Your task to perform on an android device: toggle javascript in the chrome app Image 0: 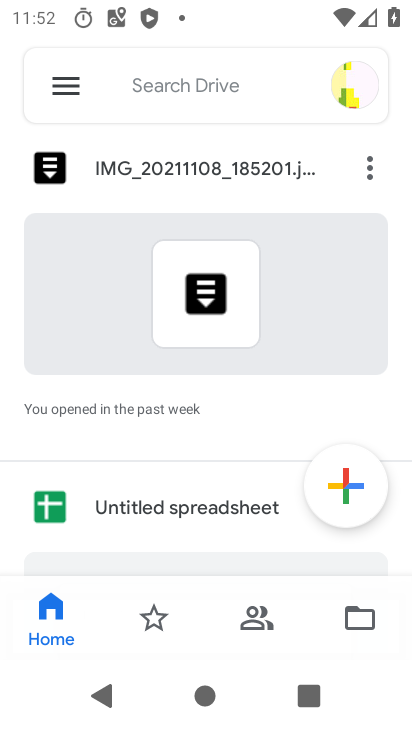
Step 0: press home button
Your task to perform on an android device: toggle javascript in the chrome app Image 1: 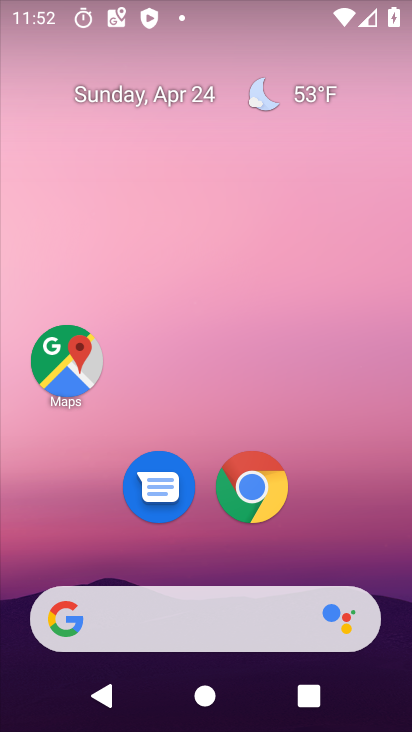
Step 1: click (246, 497)
Your task to perform on an android device: toggle javascript in the chrome app Image 2: 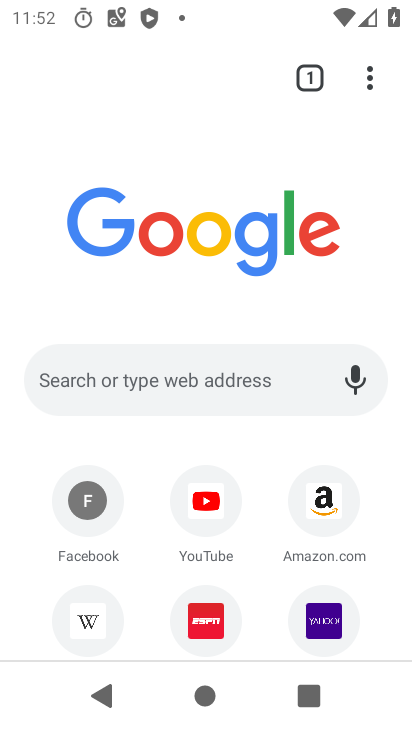
Step 2: click (366, 81)
Your task to perform on an android device: toggle javascript in the chrome app Image 3: 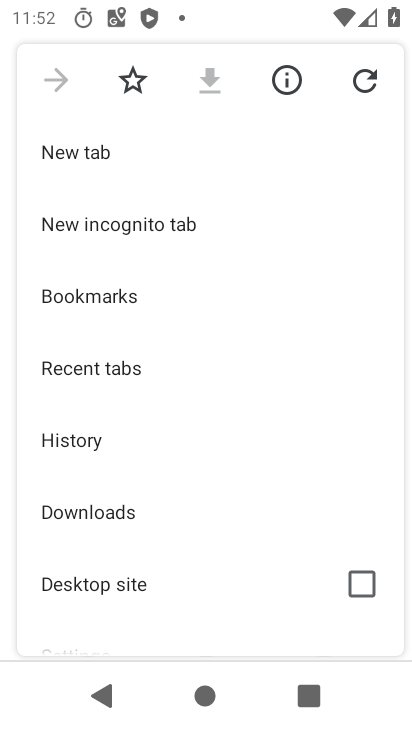
Step 3: drag from (151, 622) to (253, 213)
Your task to perform on an android device: toggle javascript in the chrome app Image 4: 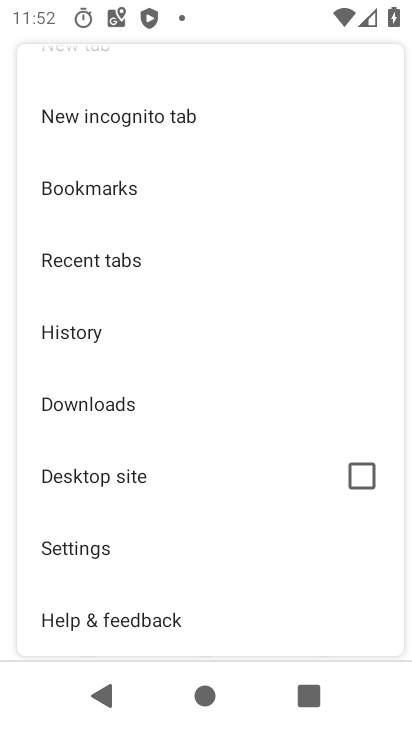
Step 4: drag from (190, 571) to (223, 287)
Your task to perform on an android device: toggle javascript in the chrome app Image 5: 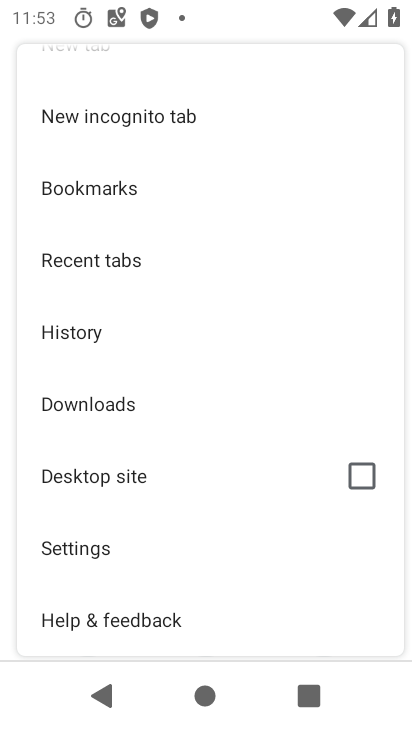
Step 5: click (108, 534)
Your task to perform on an android device: toggle javascript in the chrome app Image 6: 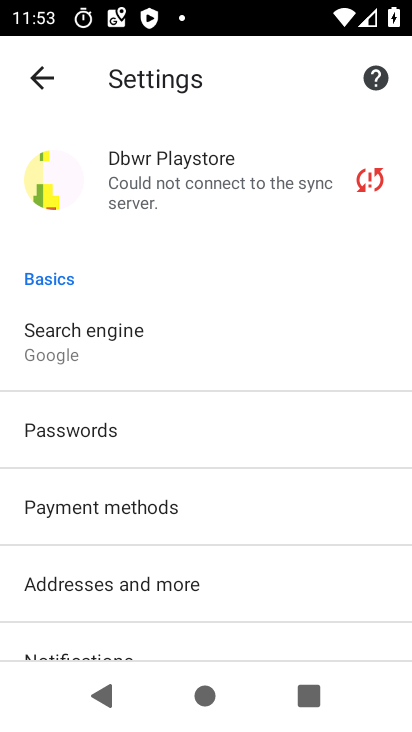
Step 6: drag from (143, 592) to (203, 195)
Your task to perform on an android device: toggle javascript in the chrome app Image 7: 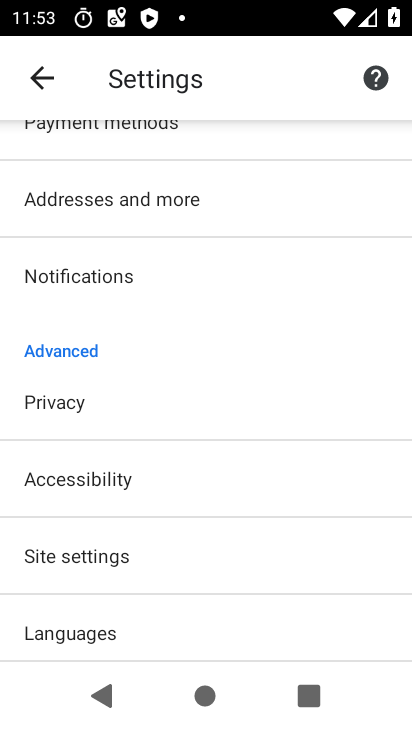
Step 7: drag from (180, 609) to (236, 106)
Your task to perform on an android device: toggle javascript in the chrome app Image 8: 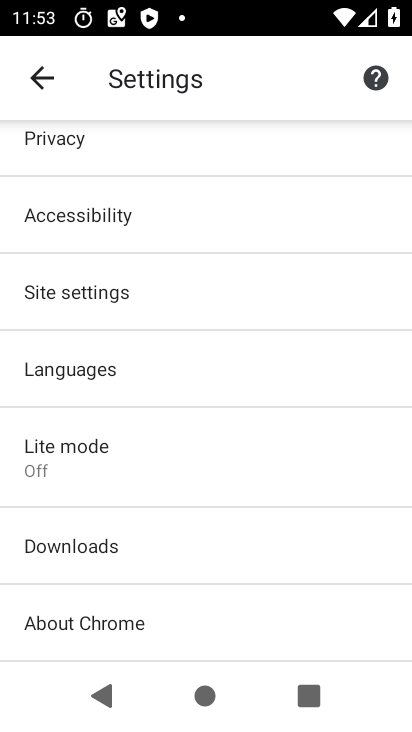
Step 8: drag from (192, 569) to (204, 305)
Your task to perform on an android device: toggle javascript in the chrome app Image 9: 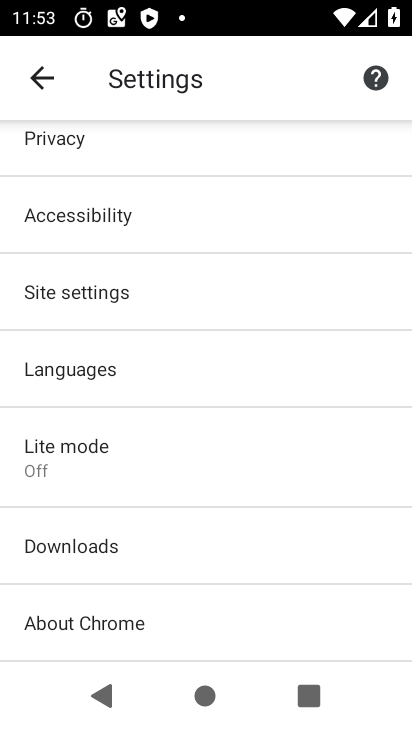
Step 9: click (133, 307)
Your task to perform on an android device: toggle javascript in the chrome app Image 10: 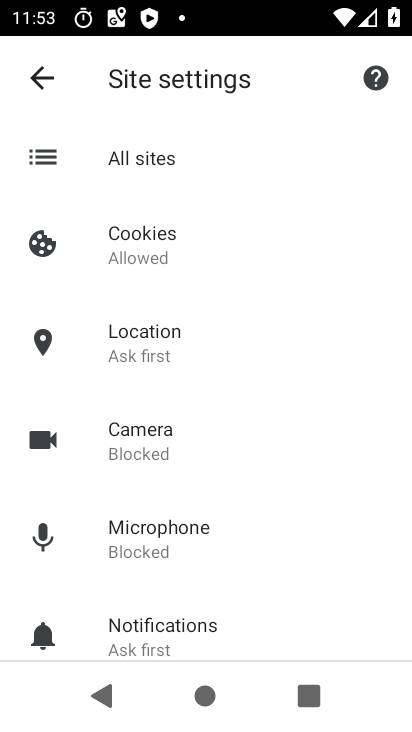
Step 10: drag from (192, 616) to (271, 224)
Your task to perform on an android device: toggle javascript in the chrome app Image 11: 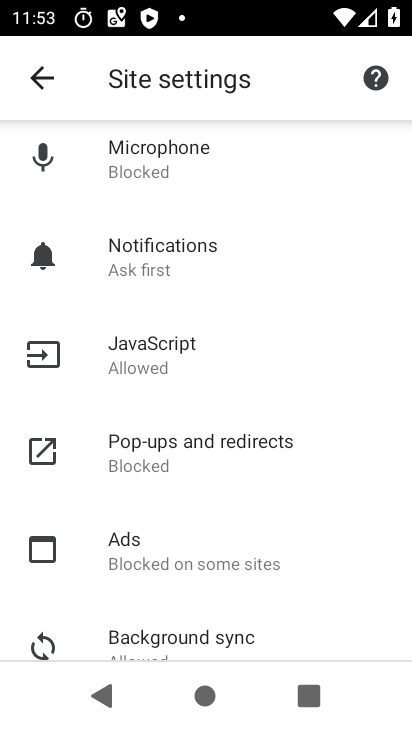
Step 11: drag from (171, 623) to (184, 515)
Your task to perform on an android device: toggle javascript in the chrome app Image 12: 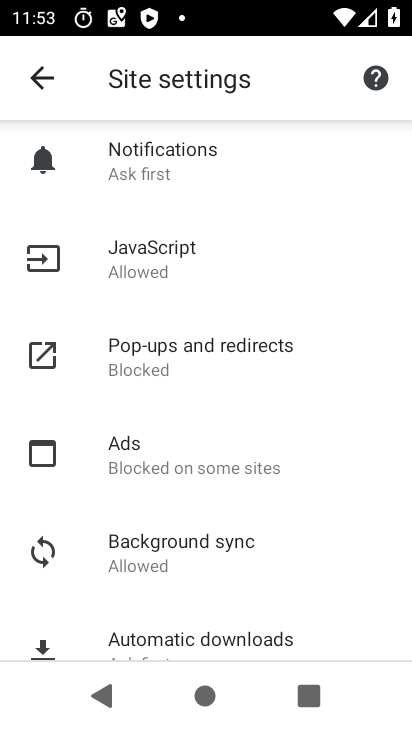
Step 12: click (190, 268)
Your task to perform on an android device: toggle javascript in the chrome app Image 13: 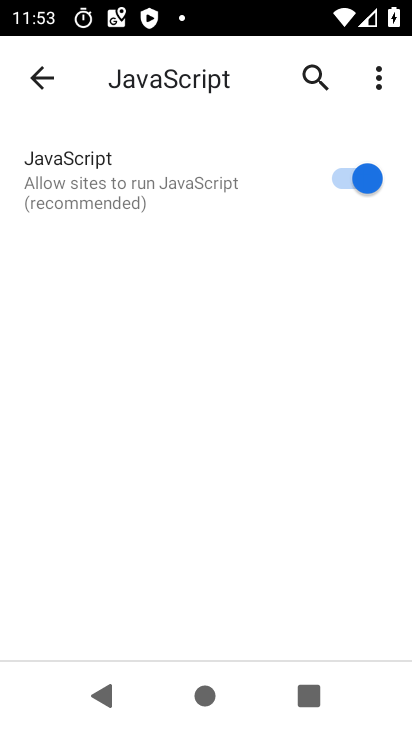
Step 13: click (354, 185)
Your task to perform on an android device: toggle javascript in the chrome app Image 14: 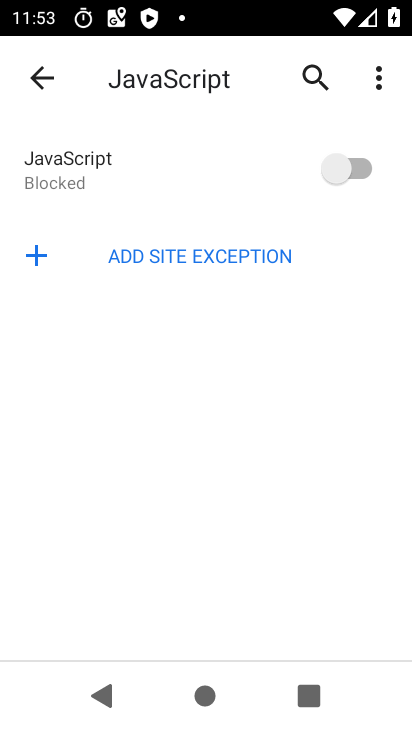
Step 14: task complete